Your task to perform on an android device: turn on notifications settings in the gmail app Image 0: 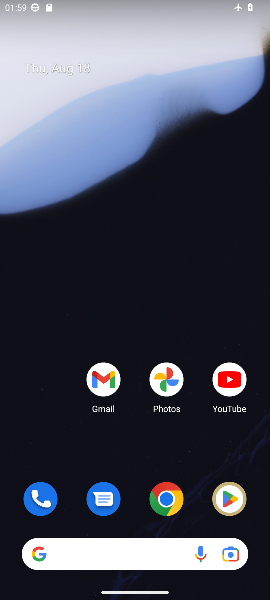
Step 0: click (103, 375)
Your task to perform on an android device: turn on notifications settings in the gmail app Image 1: 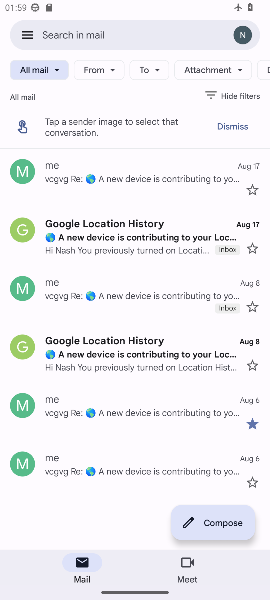
Step 1: click (26, 29)
Your task to perform on an android device: turn on notifications settings in the gmail app Image 2: 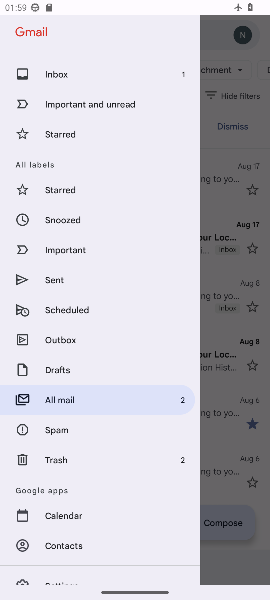
Step 2: drag from (103, 514) to (103, 198)
Your task to perform on an android device: turn on notifications settings in the gmail app Image 3: 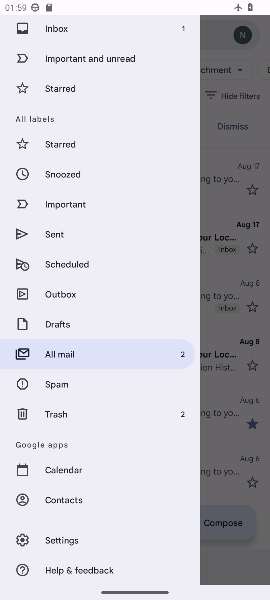
Step 3: click (57, 535)
Your task to perform on an android device: turn on notifications settings in the gmail app Image 4: 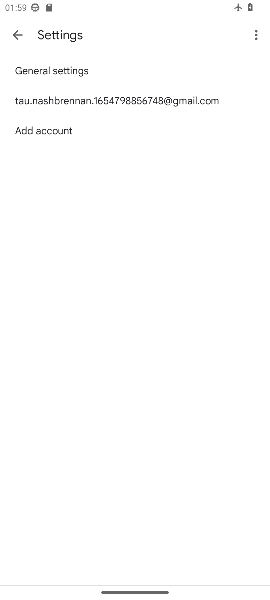
Step 4: click (30, 65)
Your task to perform on an android device: turn on notifications settings in the gmail app Image 5: 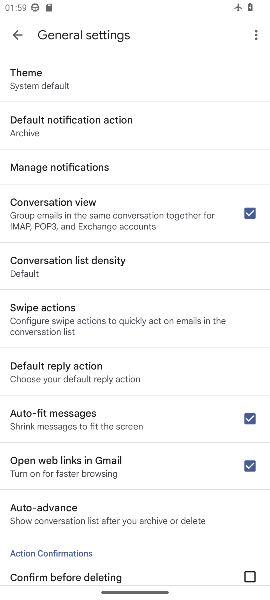
Step 5: click (46, 167)
Your task to perform on an android device: turn on notifications settings in the gmail app Image 6: 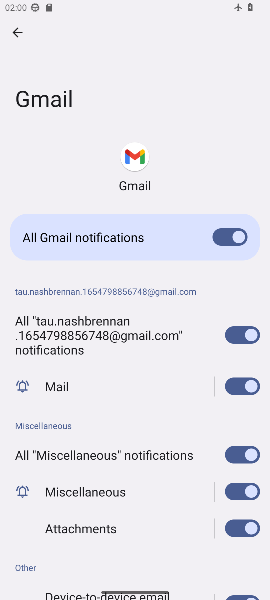
Step 6: task complete